Your task to perform on an android device: star an email in the gmail app Image 0: 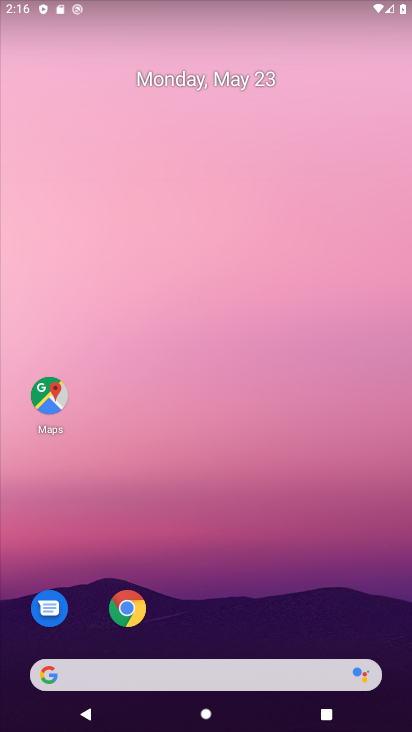
Step 0: drag from (237, 575) to (201, 212)
Your task to perform on an android device: star an email in the gmail app Image 1: 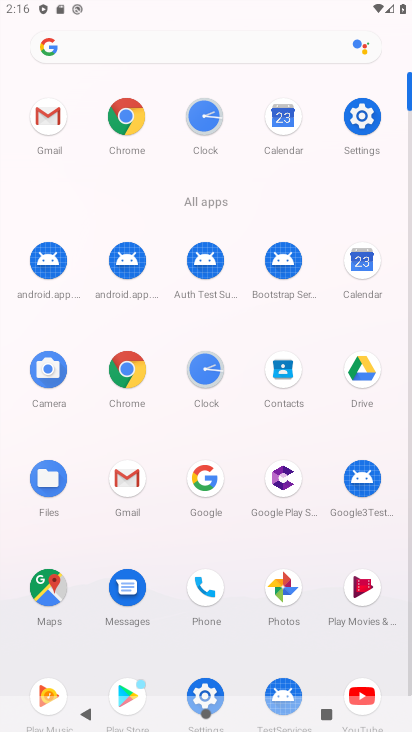
Step 1: click (123, 482)
Your task to perform on an android device: star an email in the gmail app Image 2: 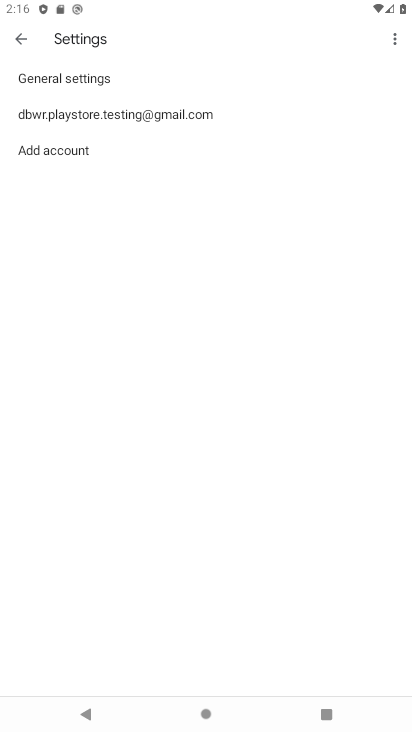
Step 2: click (45, 112)
Your task to perform on an android device: star an email in the gmail app Image 3: 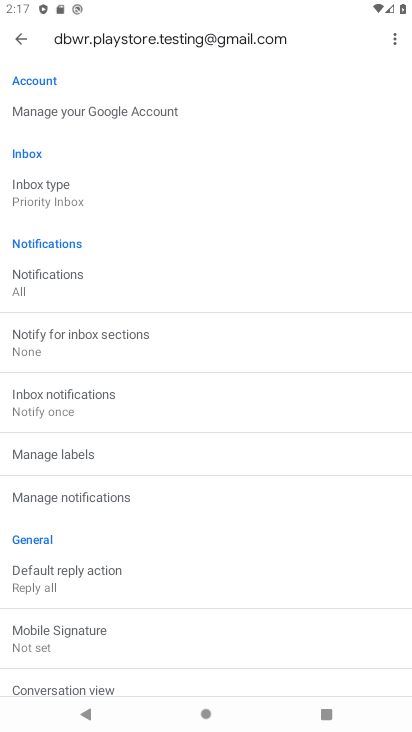
Step 3: click (18, 36)
Your task to perform on an android device: star an email in the gmail app Image 4: 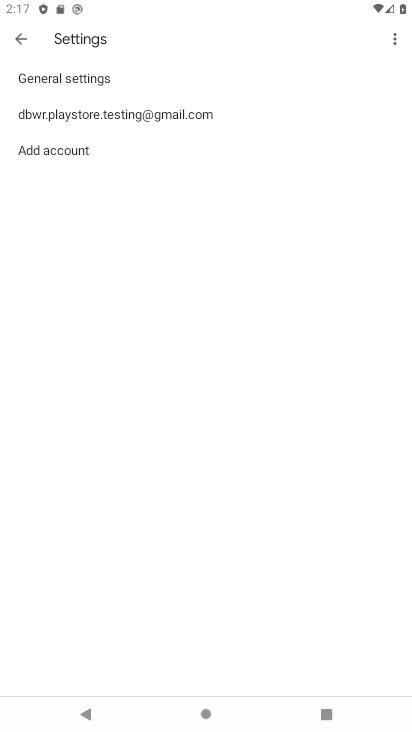
Step 4: click (17, 25)
Your task to perform on an android device: star an email in the gmail app Image 5: 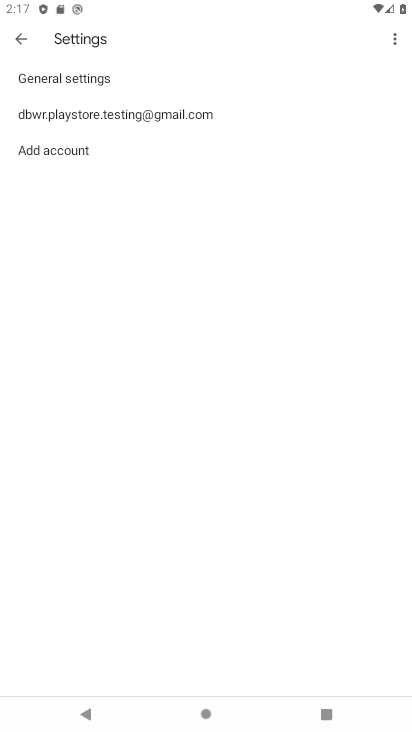
Step 5: click (9, 28)
Your task to perform on an android device: star an email in the gmail app Image 6: 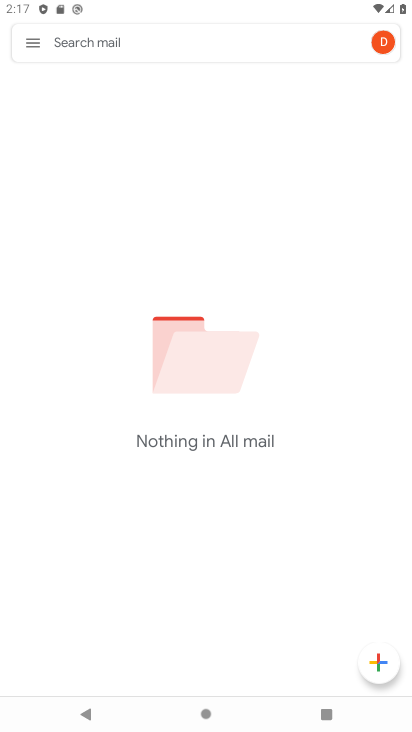
Step 6: click (9, 28)
Your task to perform on an android device: star an email in the gmail app Image 7: 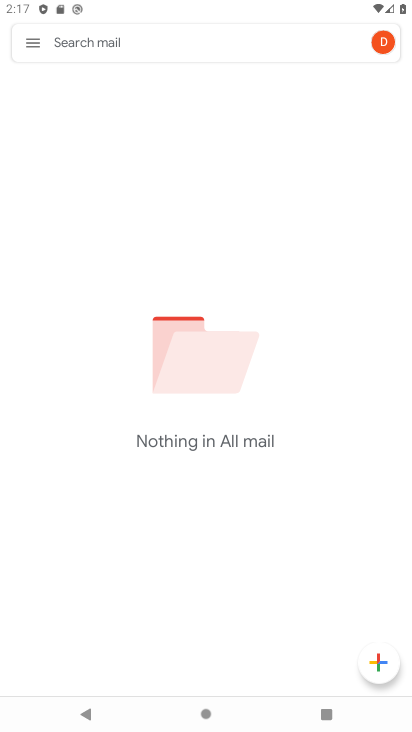
Step 7: click (31, 38)
Your task to perform on an android device: star an email in the gmail app Image 8: 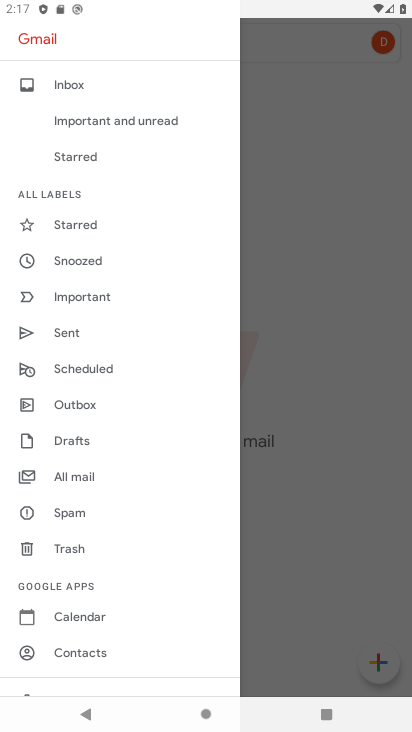
Step 8: click (94, 223)
Your task to perform on an android device: star an email in the gmail app Image 9: 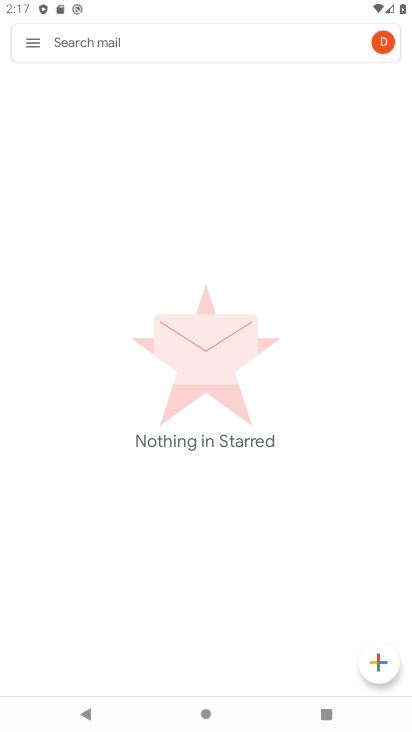
Step 9: task complete